Your task to perform on an android device: Go to Wikipedia Image 0: 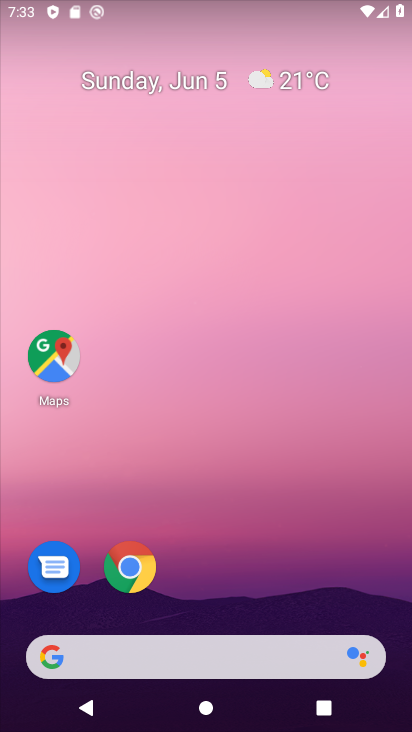
Step 0: click (130, 572)
Your task to perform on an android device: Go to Wikipedia Image 1: 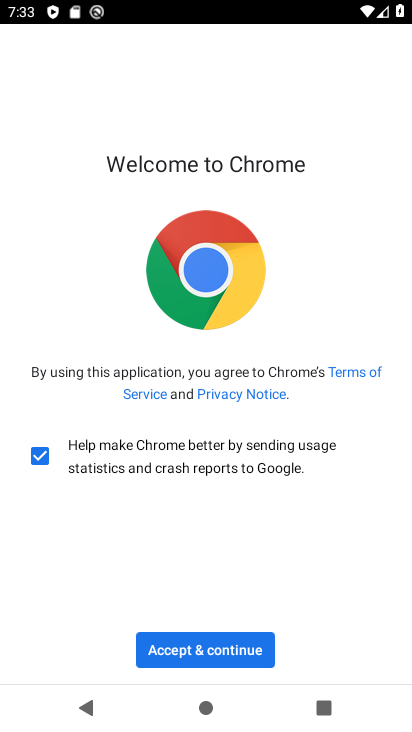
Step 1: click (216, 644)
Your task to perform on an android device: Go to Wikipedia Image 2: 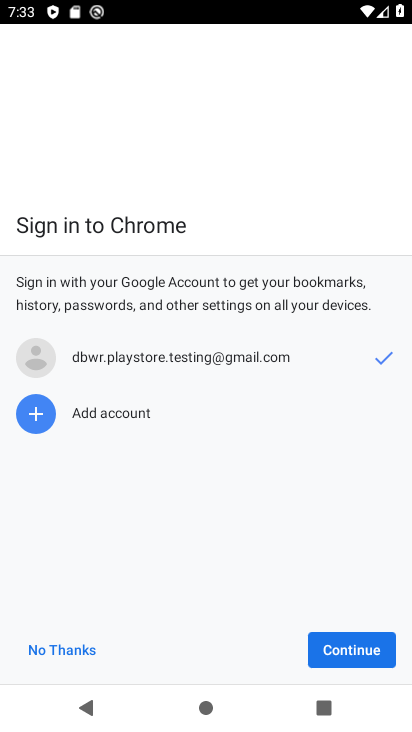
Step 2: click (350, 647)
Your task to perform on an android device: Go to Wikipedia Image 3: 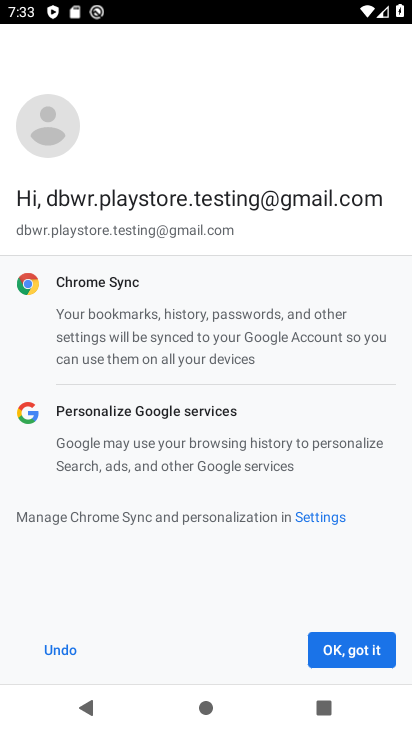
Step 3: click (350, 647)
Your task to perform on an android device: Go to Wikipedia Image 4: 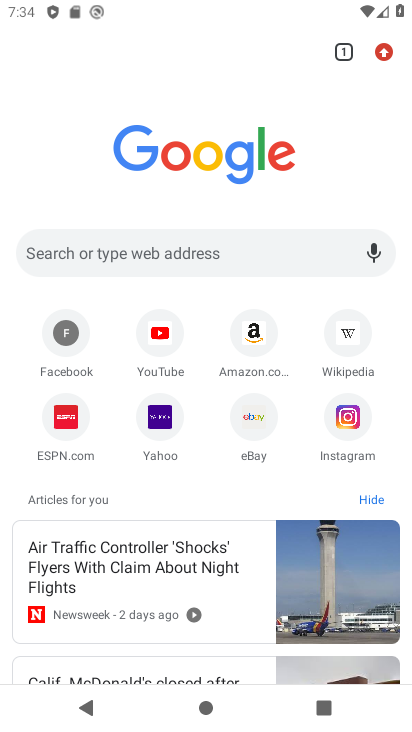
Step 4: click (346, 346)
Your task to perform on an android device: Go to Wikipedia Image 5: 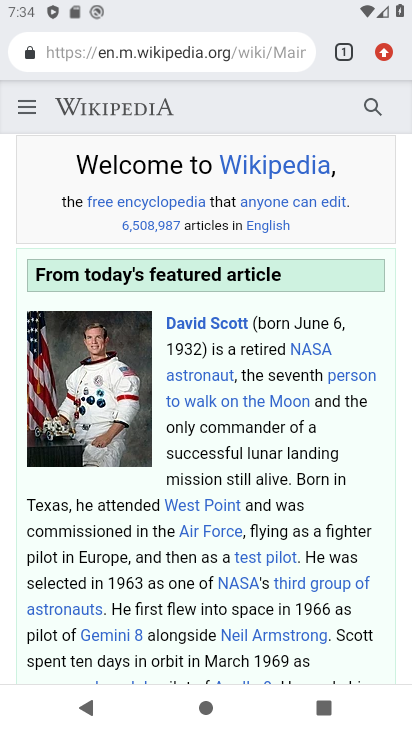
Step 5: task complete